Your task to perform on an android device: What is the recent news? Image 0: 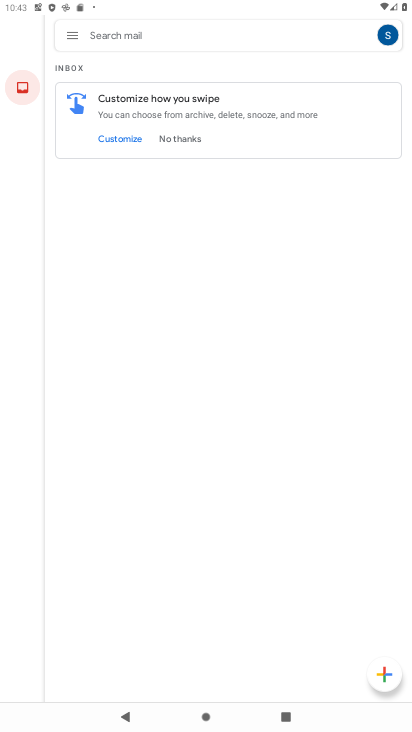
Step 0: press home button
Your task to perform on an android device: What is the recent news? Image 1: 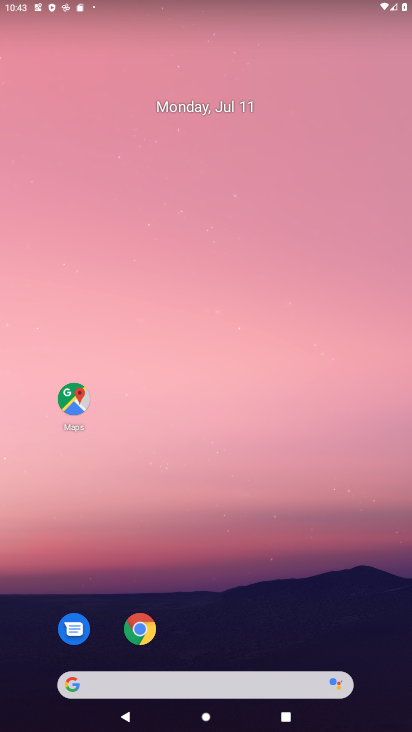
Step 1: drag from (249, 655) to (165, 66)
Your task to perform on an android device: What is the recent news? Image 2: 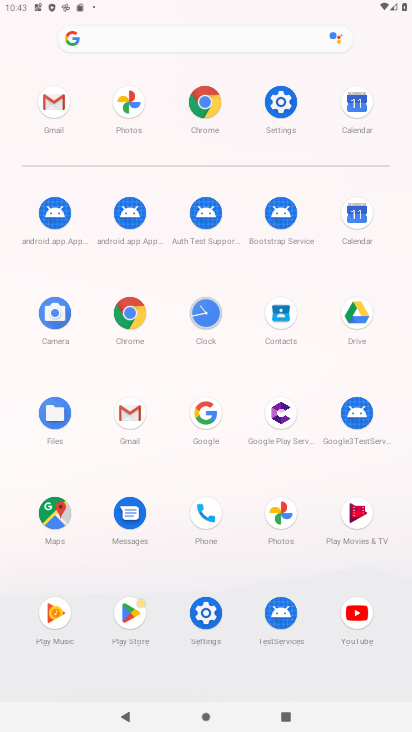
Step 2: click (244, 33)
Your task to perform on an android device: What is the recent news? Image 3: 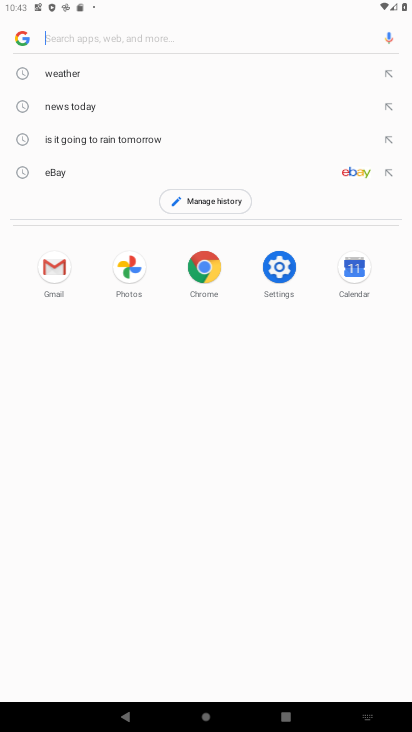
Step 3: click (173, 108)
Your task to perform on an android device: What is the recent news? Image 4: 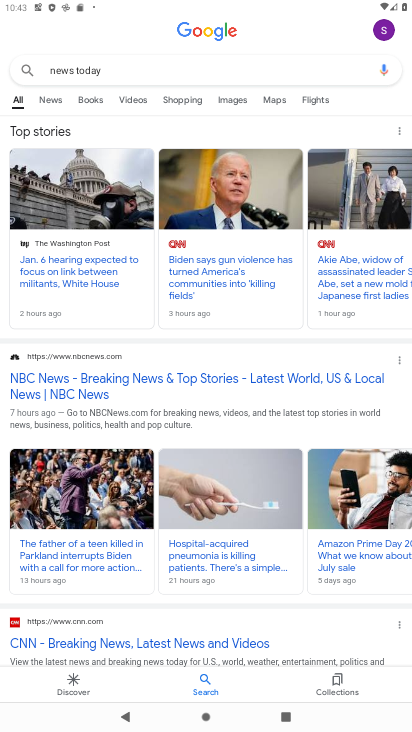
Step 4: task complete